Your task to perform on an android device: delete a single message in the gmail app Image 0: 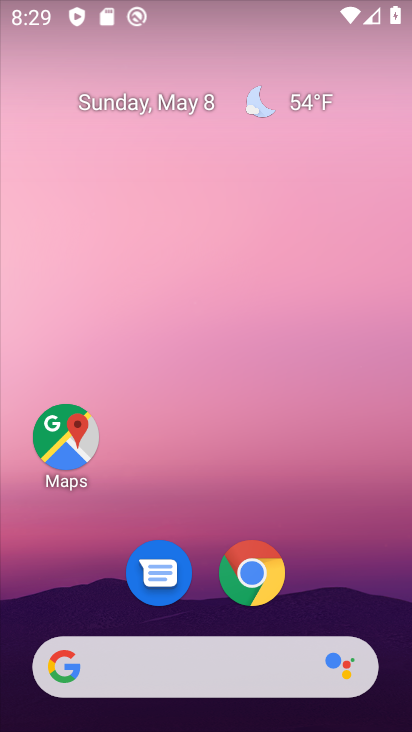
Step 0: drag from (217, 702) to (211, 106)
Your task to perform on an android device: delete a single message in the gmail app Image 1: 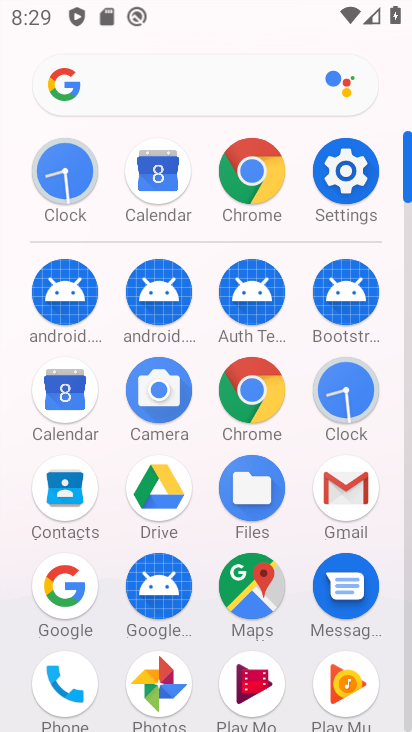
Step 1: click (347, 481)
Your task to perform on an android device: delete a single message in the gmail app Image 2: 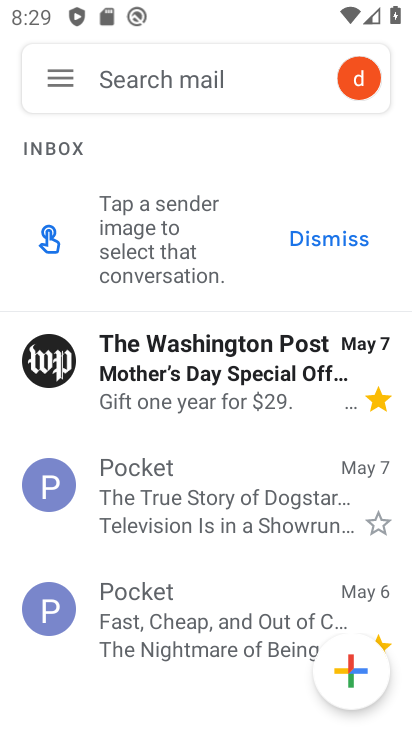
Step 2: click (211, 512)
Your task to perform on an android device: delete a single message in the gmail app Image 3: 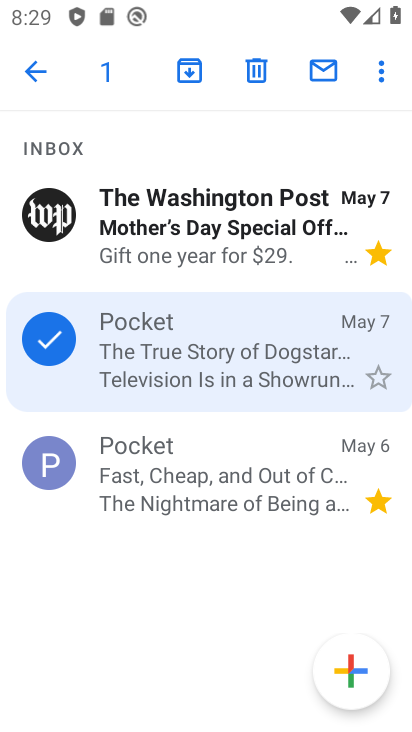
Step 3: click (251, 60)
Your task to perform on an android device: delete a single message in the gmail app Image 4: 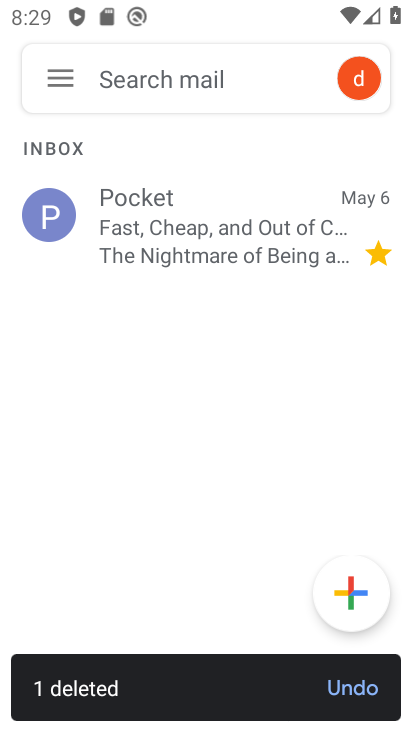
Step 4: task complete